Your task to perform on an android device: Go to Reddit.com Image 0: 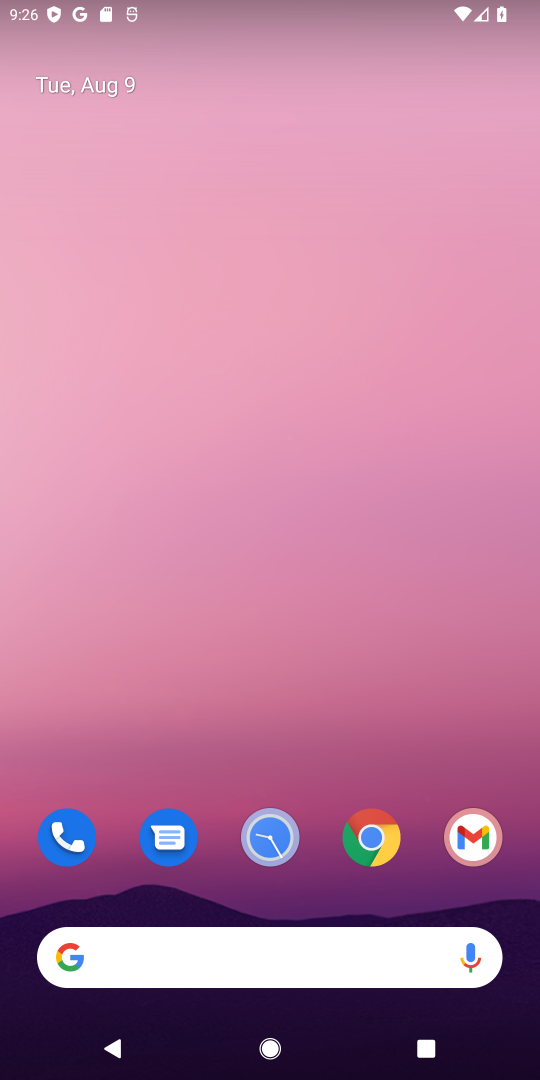
Step 0: click (372, 844)
Your task to perform on an android device: Go to Reddit.com Image 1: 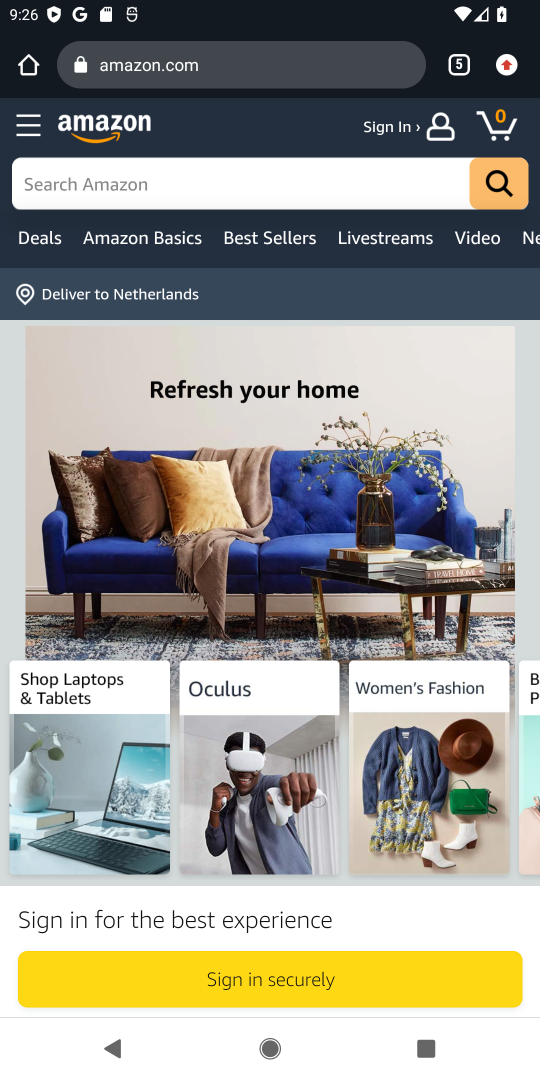
Step 1: task complete